Your task to perform on an android device: Check the weather Image 0: 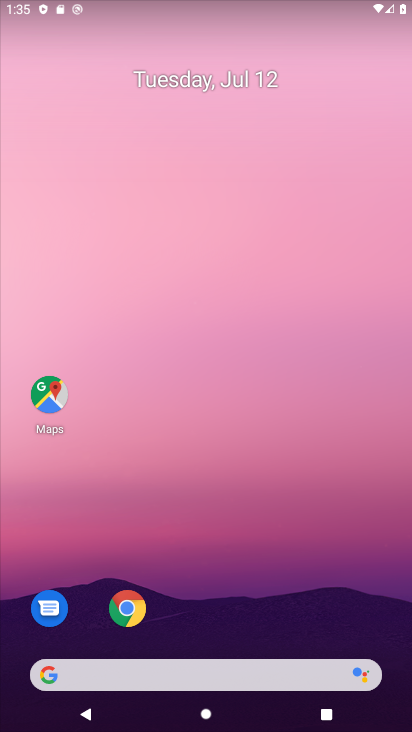
Step 0: drag from (333, 641) to (243, 470)
Your task to perform on an android device: Check the weather Image 1: 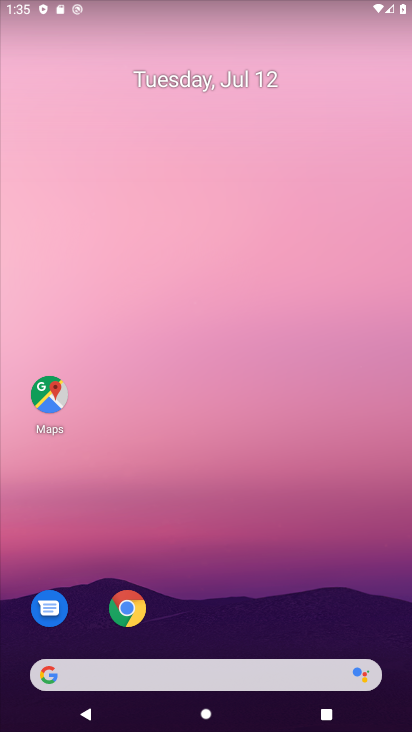
Step 1: click (206, 678)
Your task to perform on an android device: Check the weather Image 2: 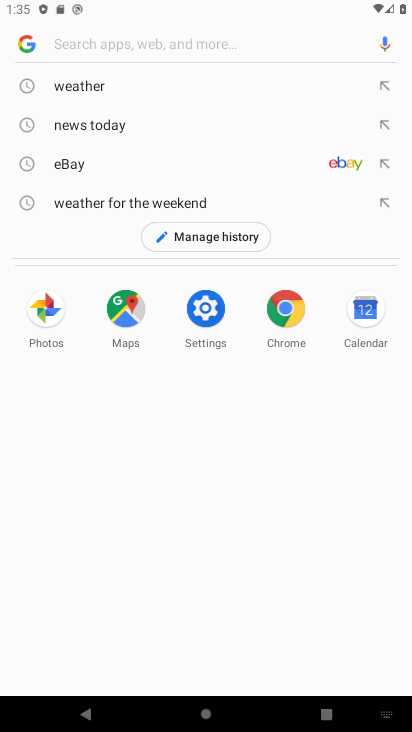
Step 2: click (143, 85)
Your task to perform on an android device: Check the weather Image 3: 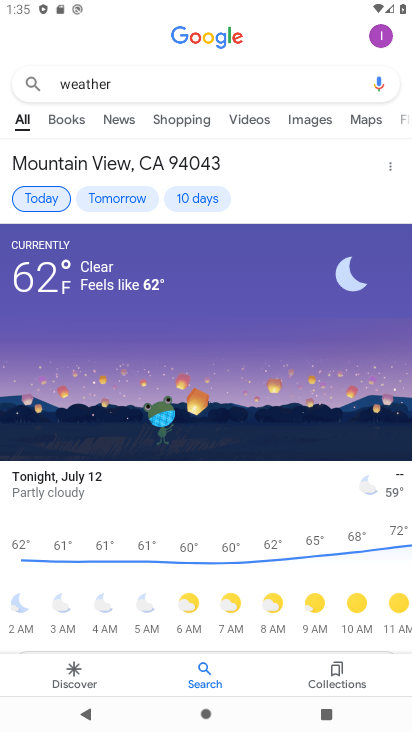
Step 3: task complete